Your task to perform on an android device: turn on location history Image 0: 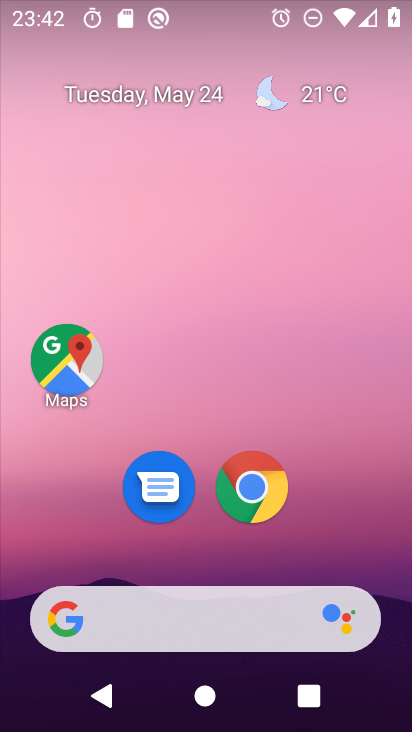
Step 0: click (65, 347)
Your task to perform on an android device: turn on location history Image 1: 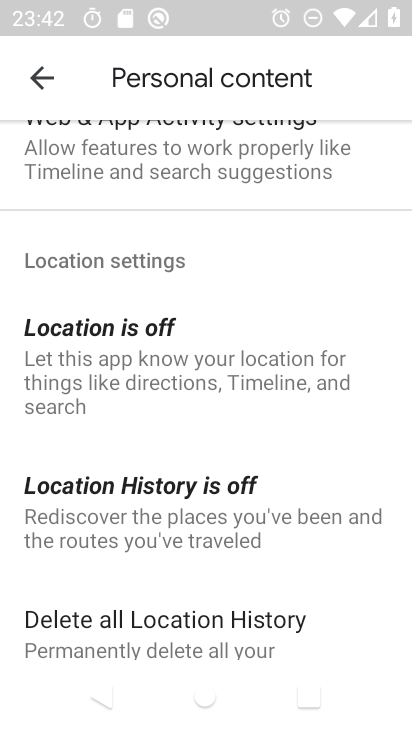
Step 1: click (165, 523)
Your task to perform on an android device: turn on location history Image 2: 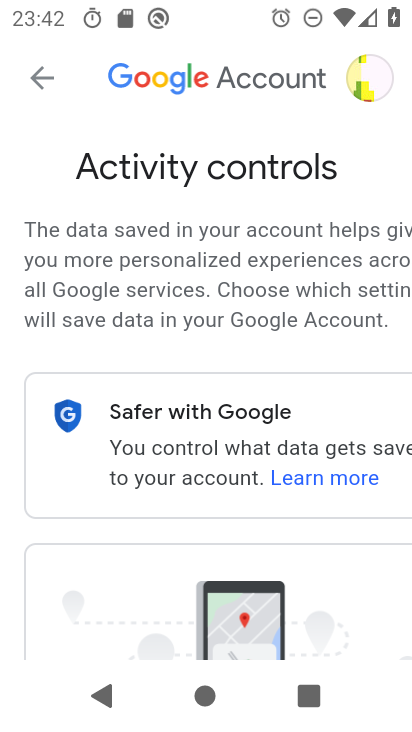
Step 2: task complete